Your task to perform on an android device: Is it going to rain this weekend? Image 0: 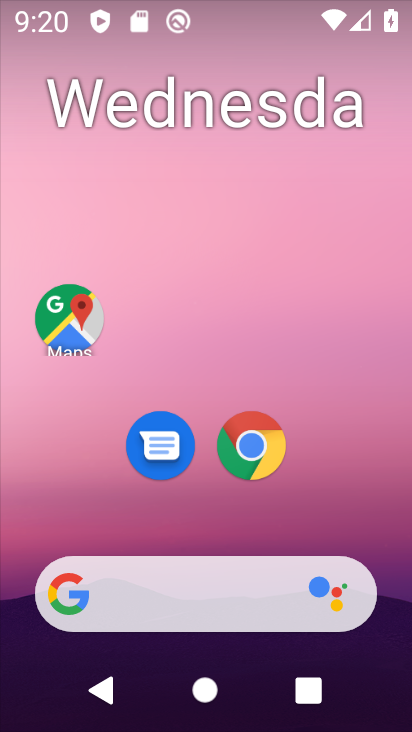
Step 0: drag from (219, 519) to (230, 145)
Your task to perform on an android device: Is it going to rain this weekend? Image 1: 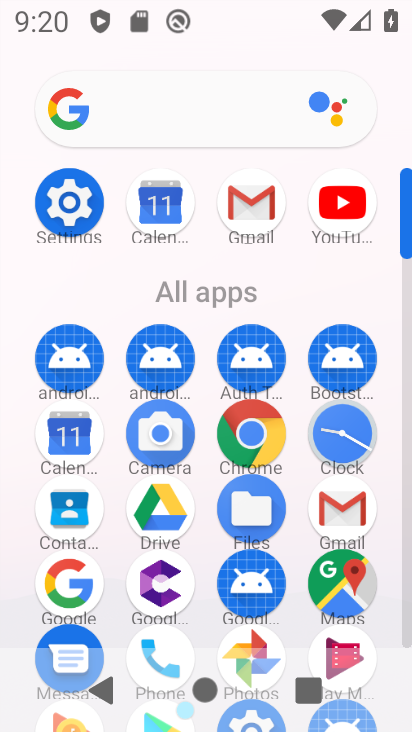
Step 1: click (87, 437)
Your task to perform on an android device: Is it going to rain this weekend? Image 2: 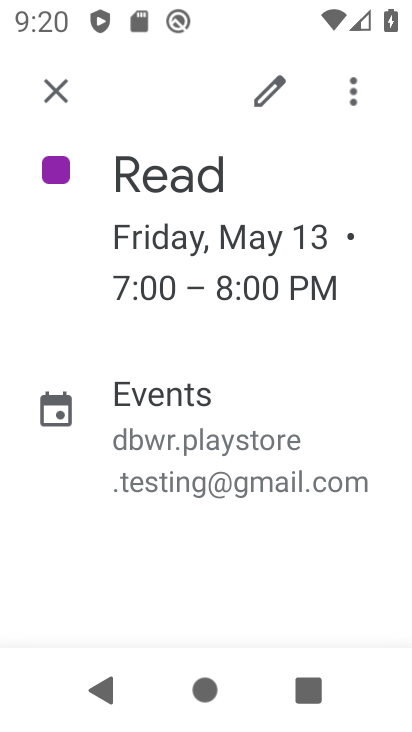
Step 2: click (46, 94)
Your task to perform on an android device: Is it going to rain this weekend? Image 3: 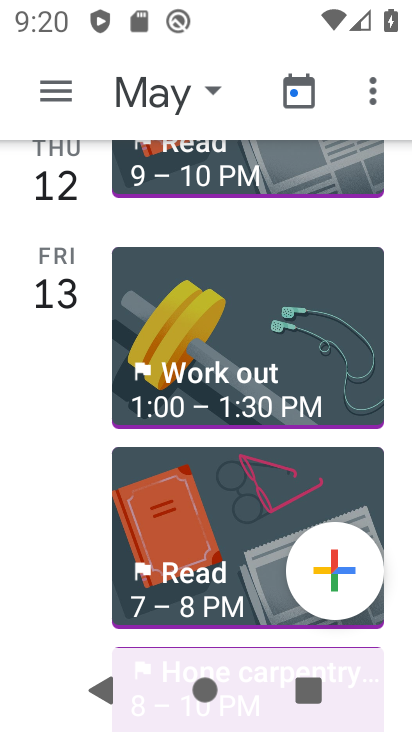
Step 3: press back button
Your task to perform on an android device: Is it going to rain this weekend? Image 4: 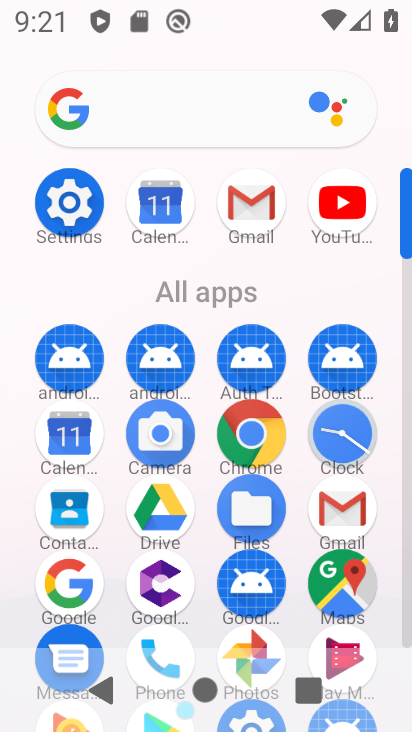
Step 4: press back button
Your task to perform on an android device: Is it going to rain this weekend? Image 5: 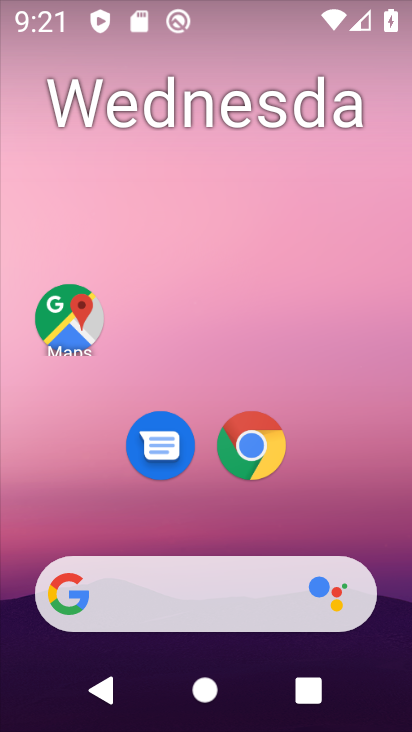
Step 5: drag from (189, 518) to (248, 79)
Your task to perform on an android device: Is it going to rain this weekend? Image 6: 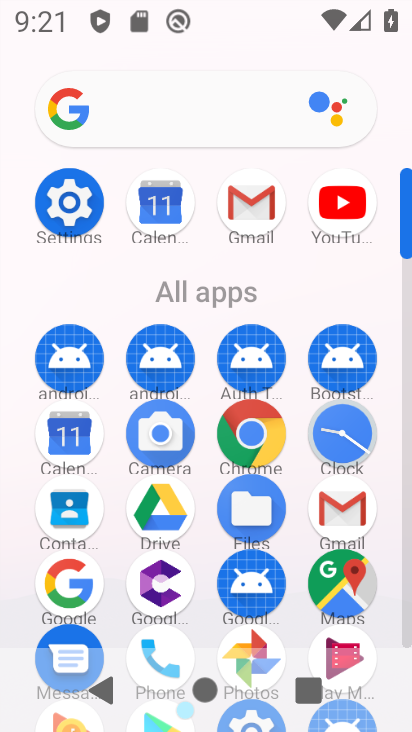
Step 6: click (126, 121)
Your task to perform on an android device: Is it going to rain this weekend? Image 7: 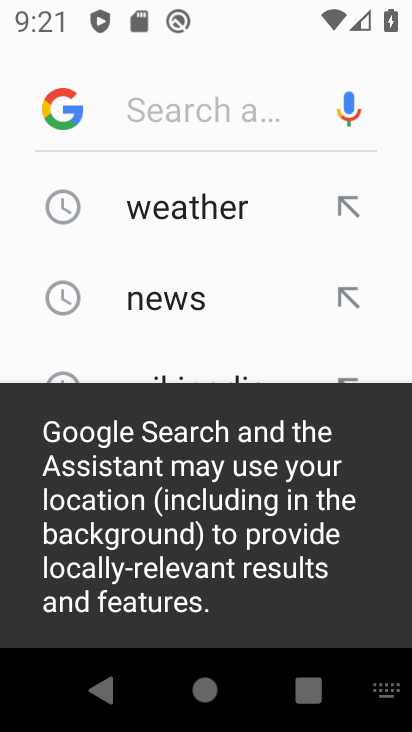
Step 7: click (155, 224)
Your task to perform on an android device: Is it going to rain this weekend? Image 8: 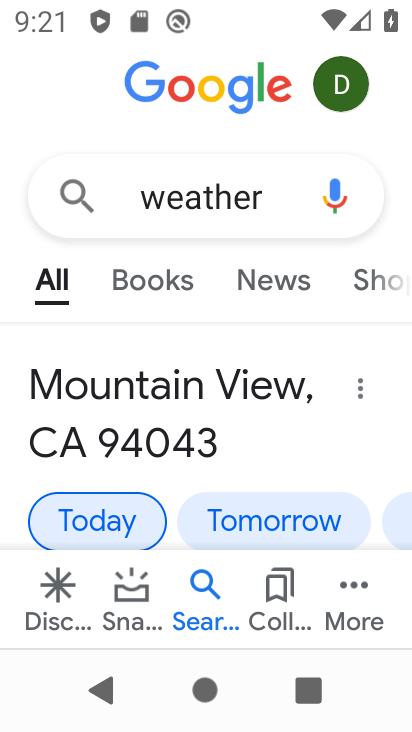
Step 8: drag from (300, 522) to (39, 509)
Your task to perform on an android device: Is it going to rain this weekend? Image 9: 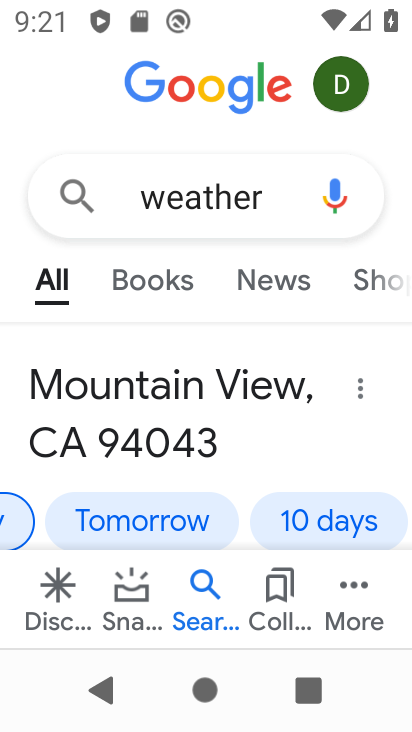
Step 9: click (303, 508)
Your task to perform on an android device: Is it going to rain this weekend? Image 10: 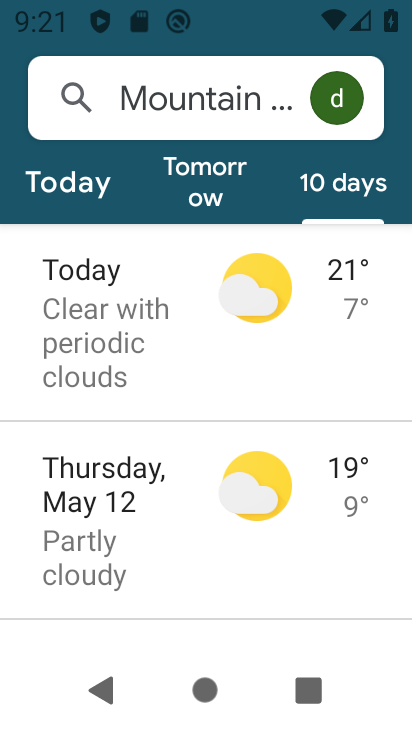
Step 10: task complete